Your task to perform on an android device: manage bookmarks in the chrome app Image 0: 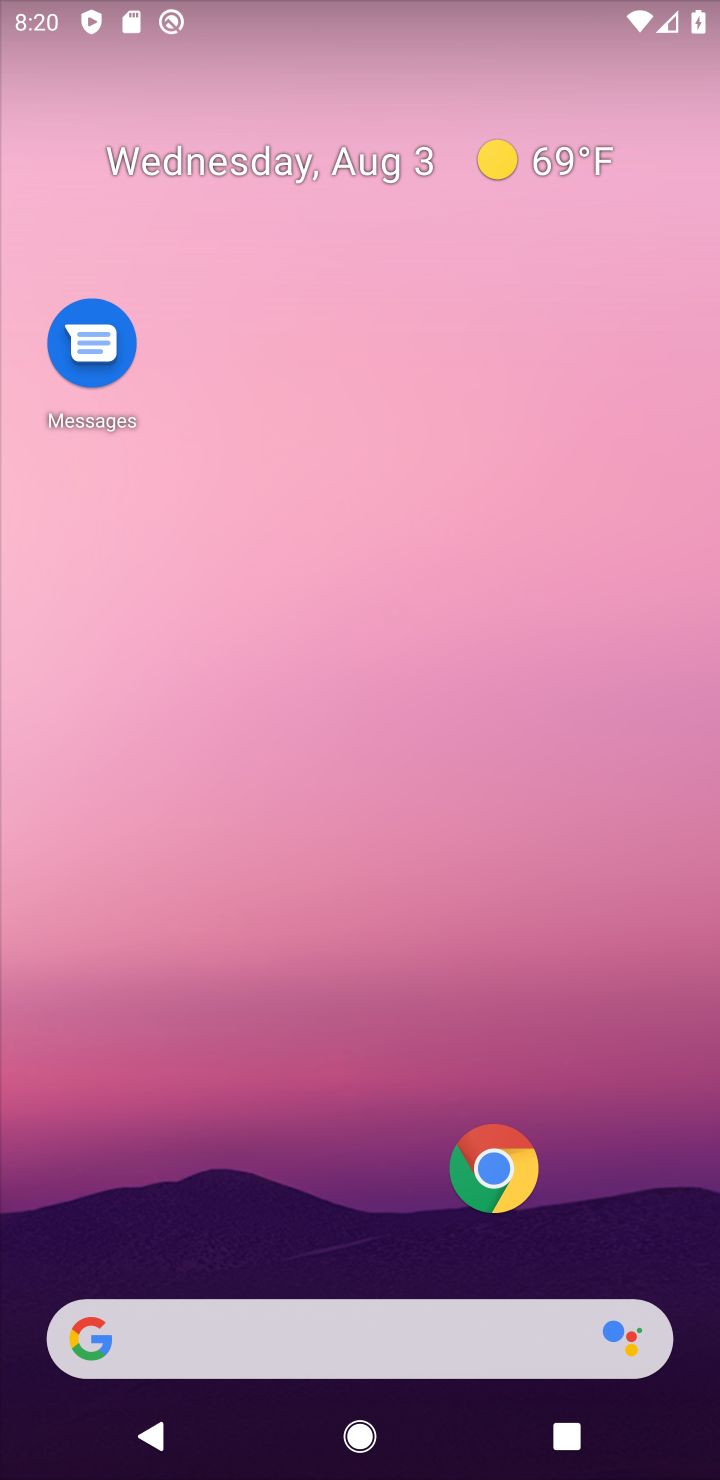
Step 0: click (504, 1152)
Your task to perform on an android device: manage bookmarks in the chrome app Image 1: 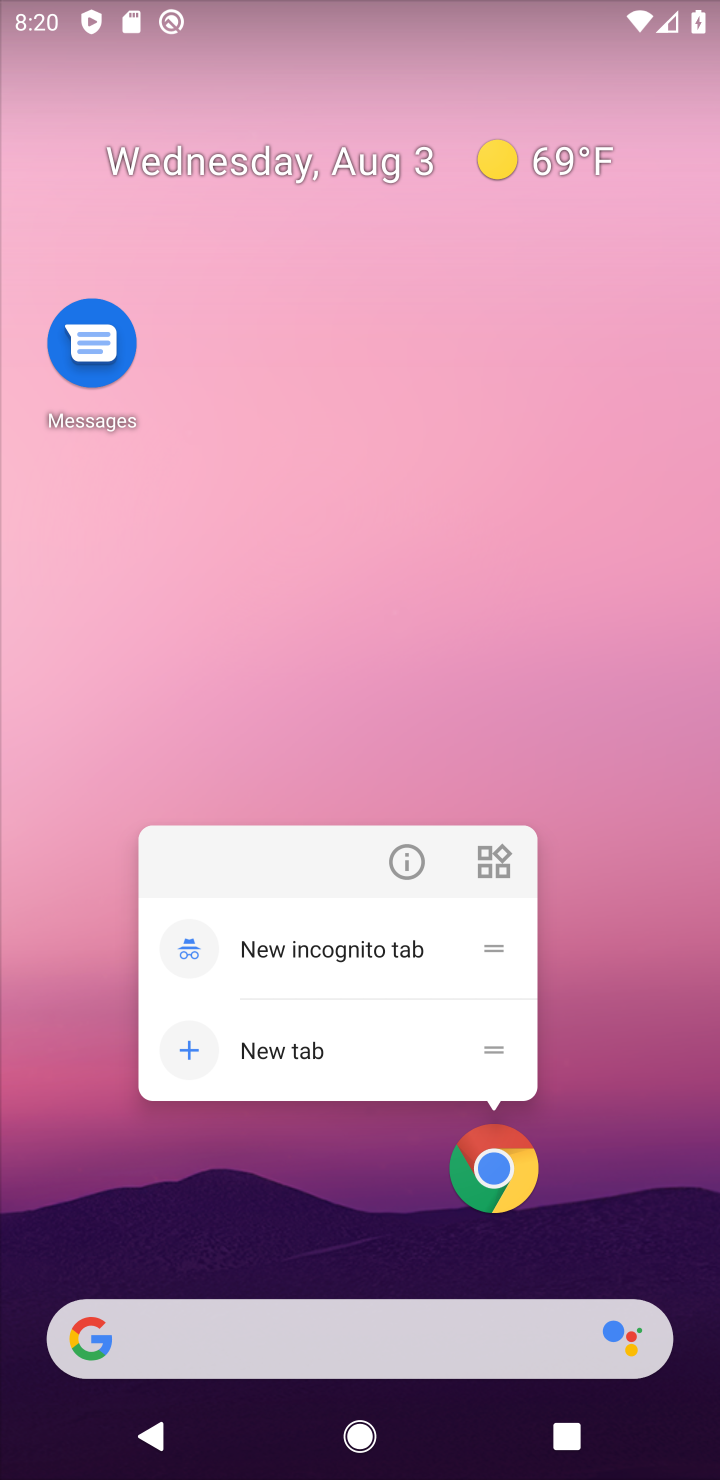
Step 1: click (485, 1217)
Your task to perform on an android device: manage bookmarks in the chrome app Image 2: 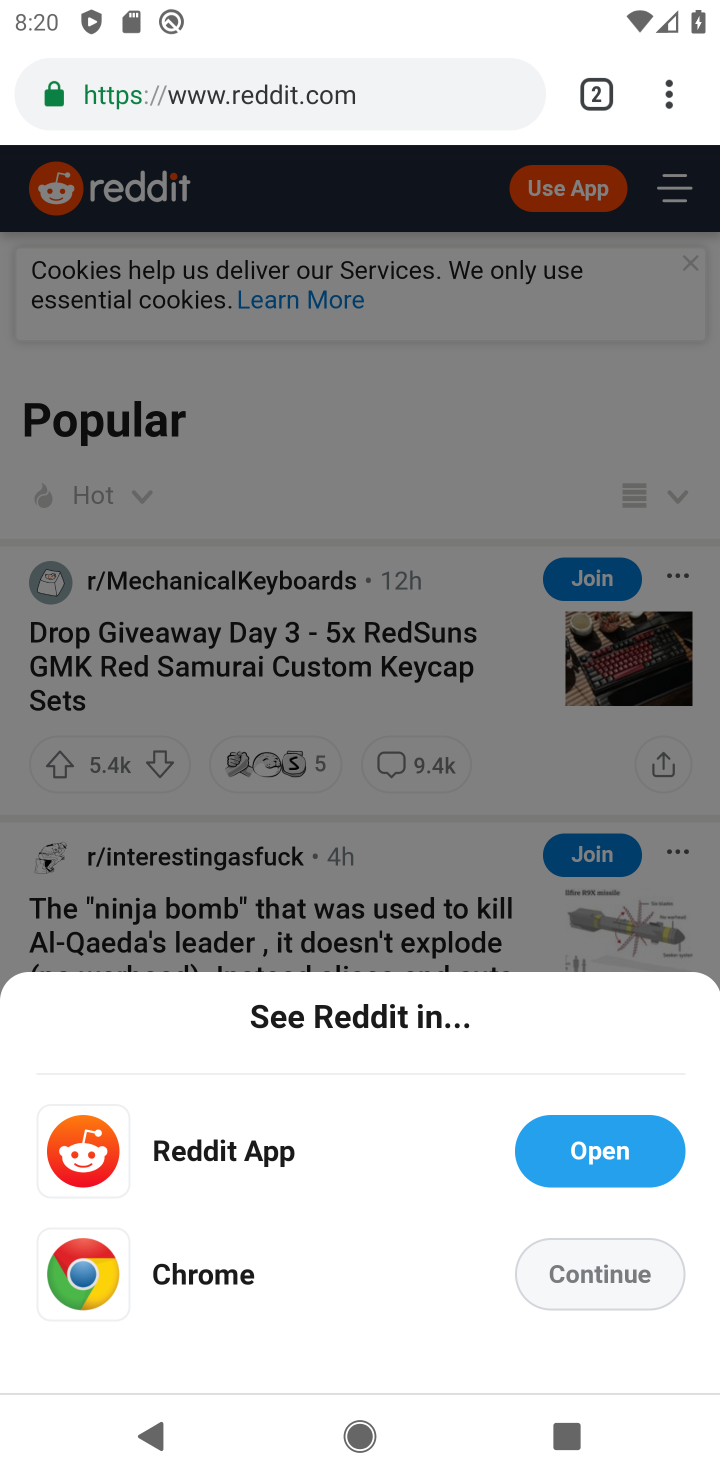
Step 2: drag from (660, 77) to (316, 355)
Your task to perform on an android device: manage bookmarks in the chrome app Image 3: 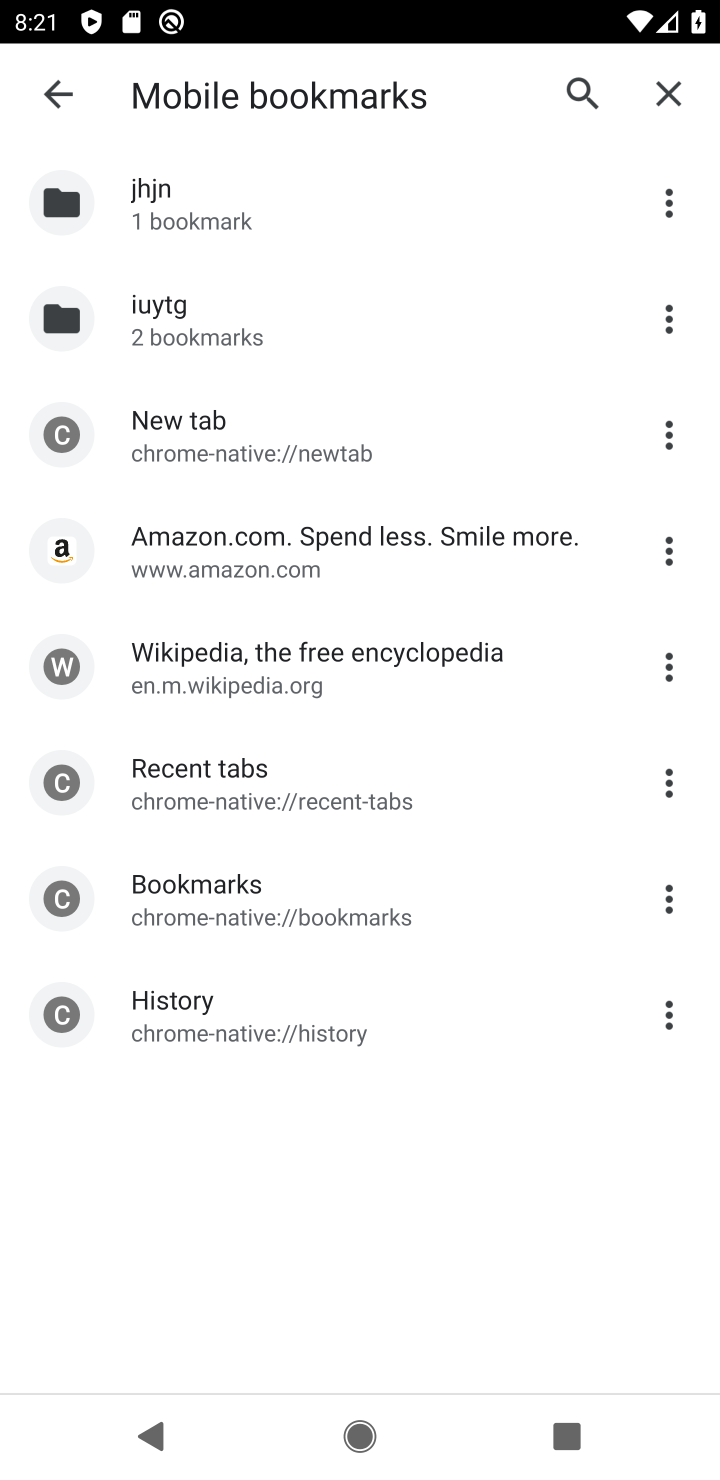
Step 3: click (663, 443)
Your task to perform on an android device: manage bookmarks in the chrome app Image 4: 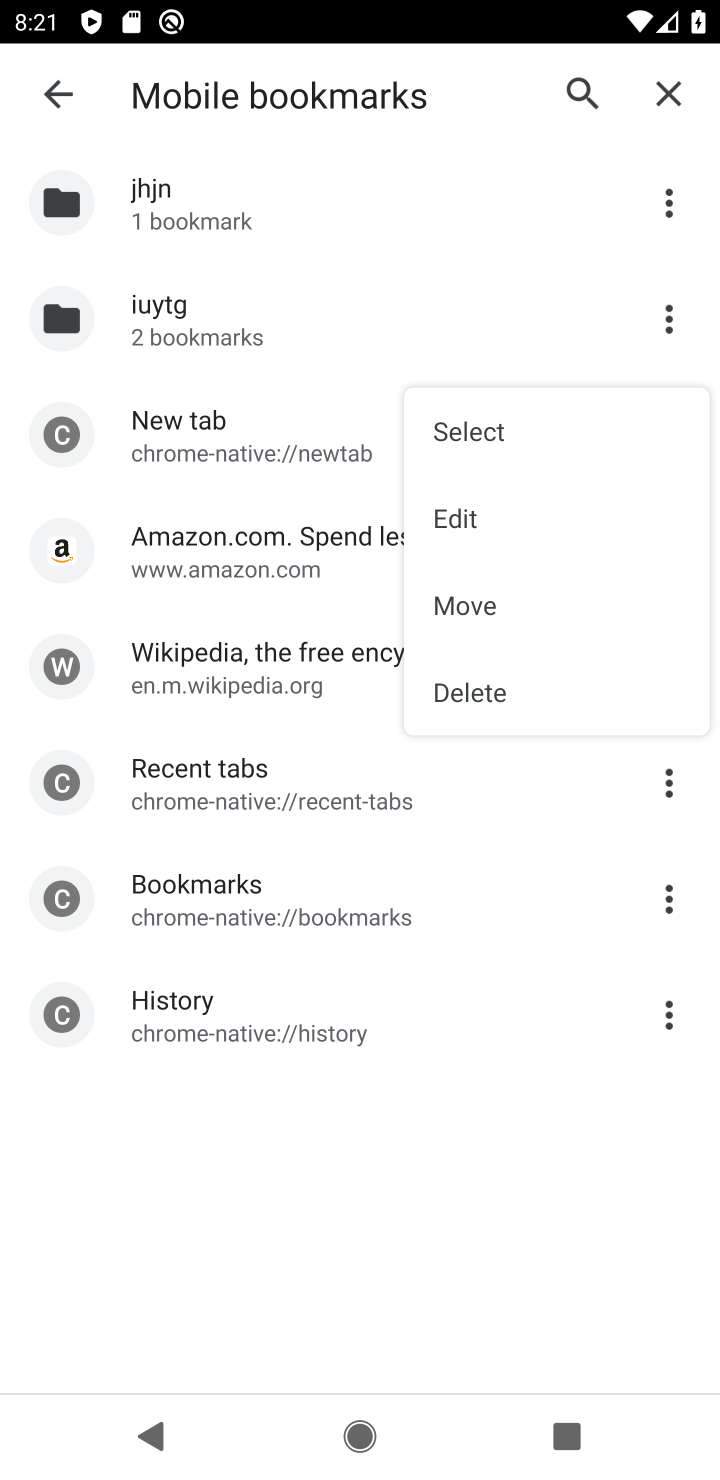
Step 4: click (457, 530)
Your task to perform on an android device: manage bookmarks in the chrome app Image 5: 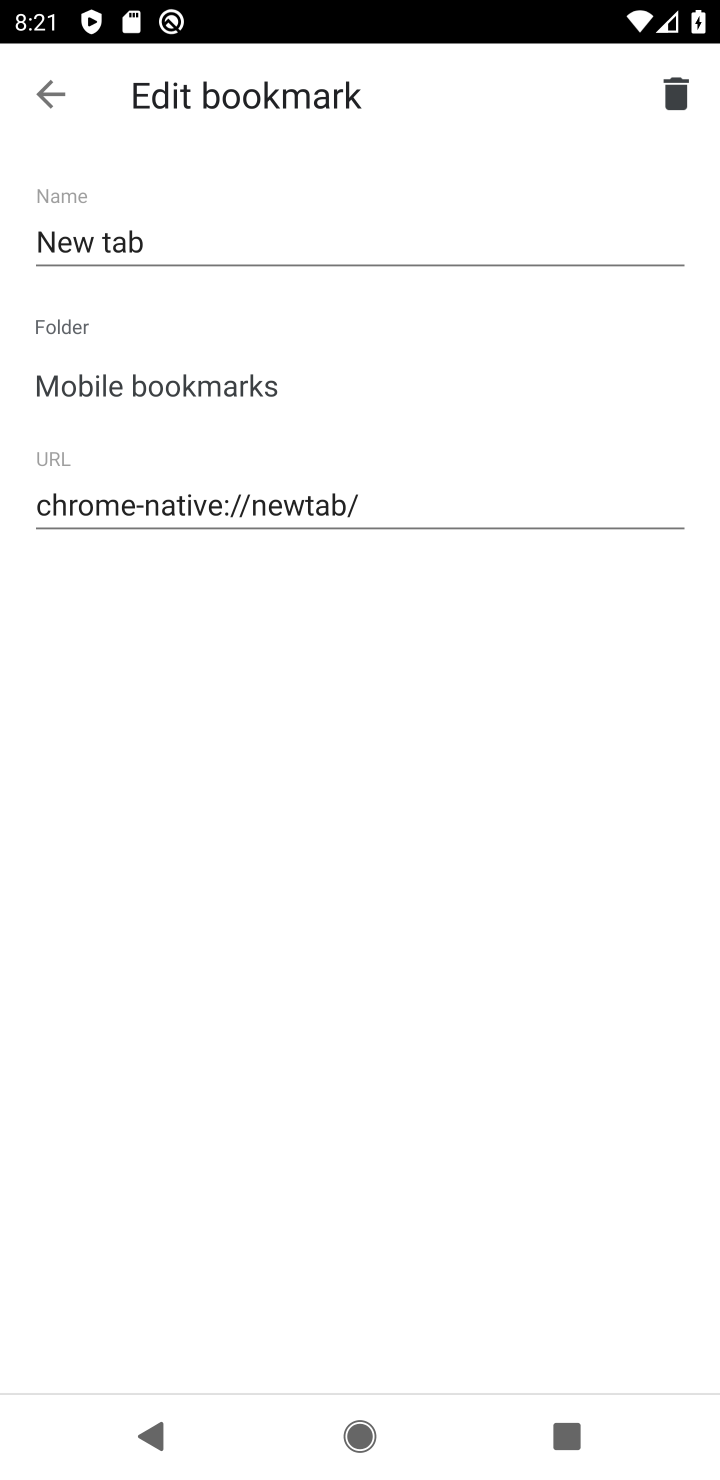
Step 5: task complete